Your task to perform on an android device: Open the map Image 0: 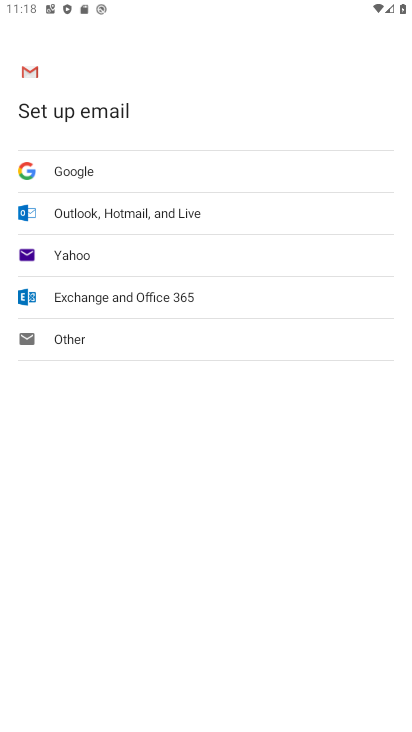
Step 0: press home button
Your task to perform on an android device: Open the map Image 1: 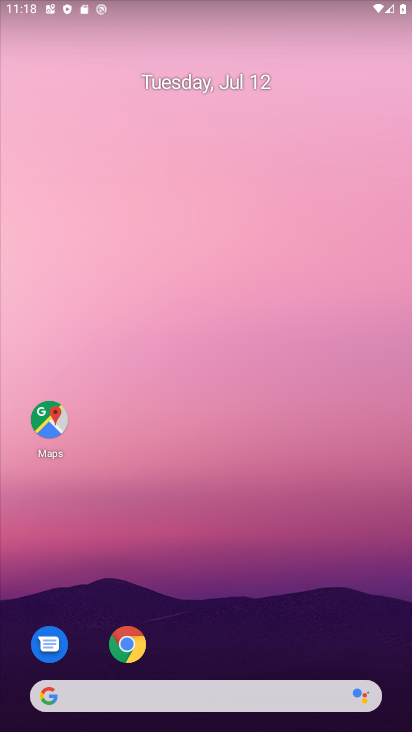
Step 1: click (53, 419)
Your task to perform on an android device: Open the map Image 2: 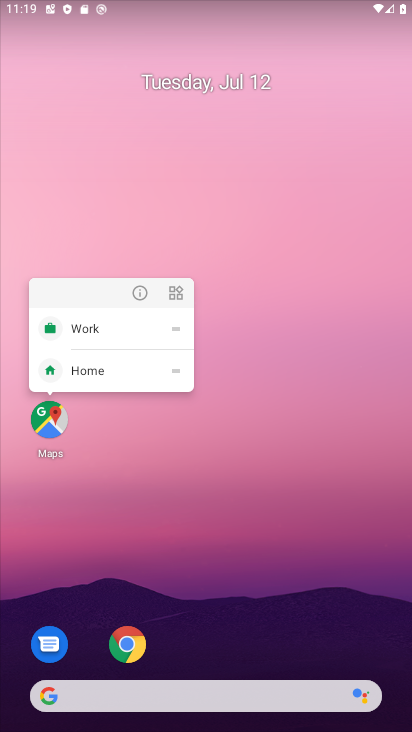
Step 2: click (56, 423)
Your task to perform on an android device: Open the map Image 3: 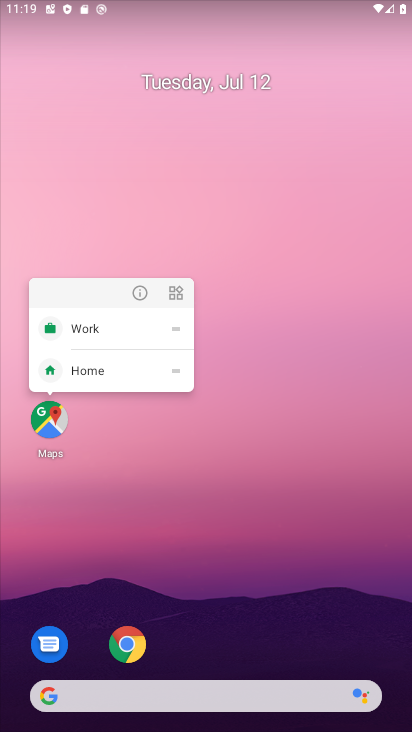
Step 3: click (56, 423)
Your task to perform on an android device: Open the map Image 4: 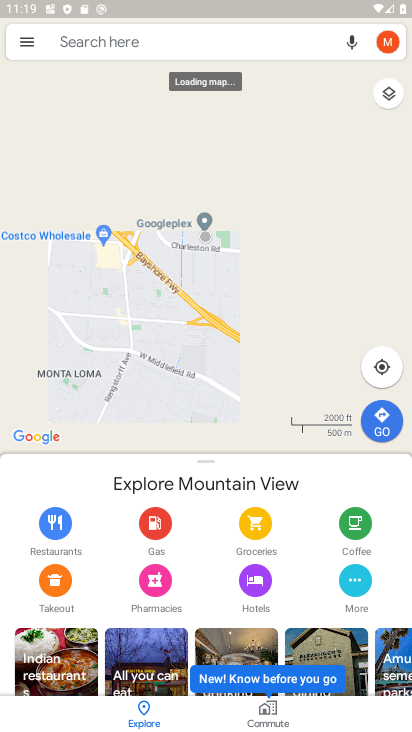
Step 4: task complete